Your task to perform on an android device: Go to Amazon Image 0: 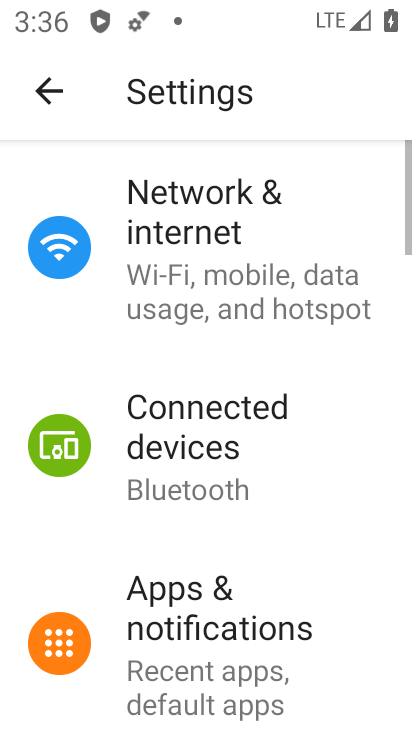
Step 0: press home button
Your task to perform on an android device: Go to Amazon Image 1: 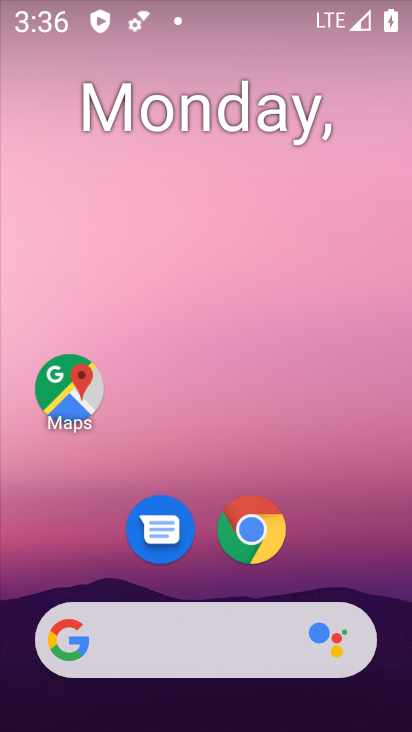
Step 1: click (250, 525)
Your task to perform on an android device: Go to Amazon Image 2: 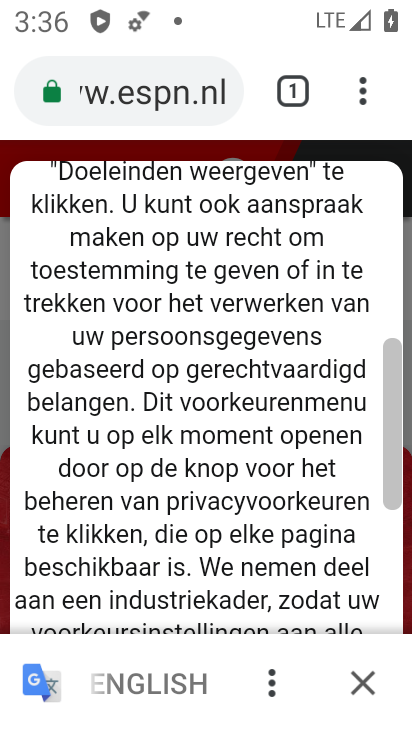
Step 2: click (182, 98)
Your task to perform on an android device: Go to Amazon Image 3: 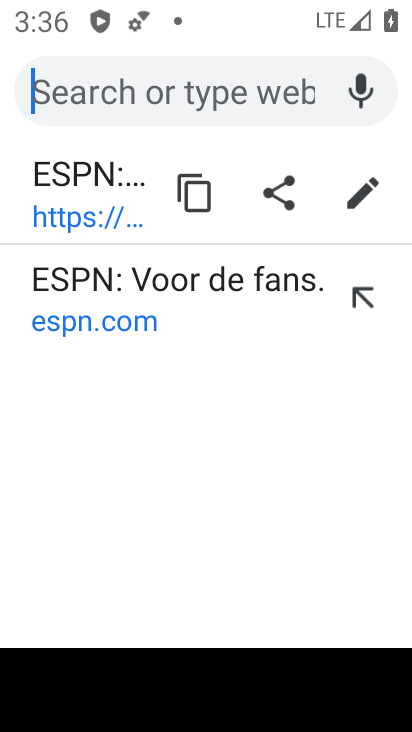
Step 3: type "amazon"
Your task to perform on an android device: Go to Amazon Image 4: 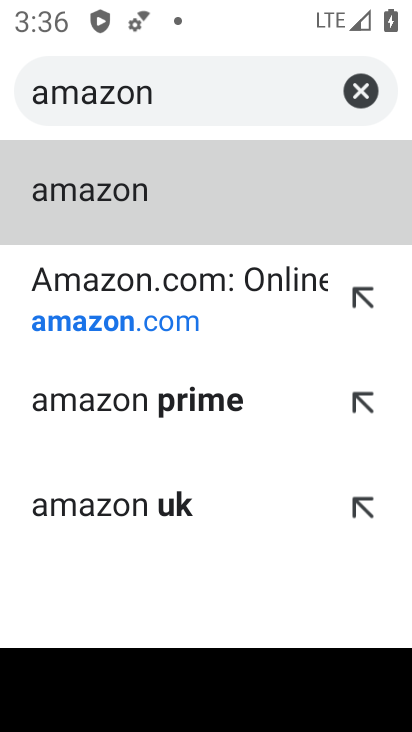
Step 4: click (180, 290)
Your task to perform on an android device: Go to Amazon Image 5: 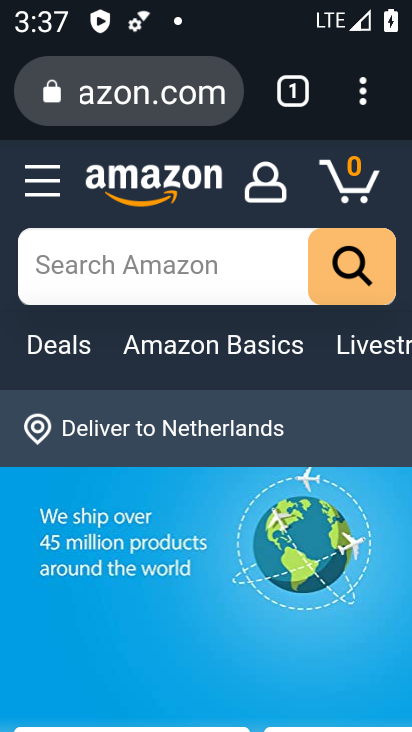
Step 5: task complete